Your task to perform on an android device: Open Yahoo.com Image 0: 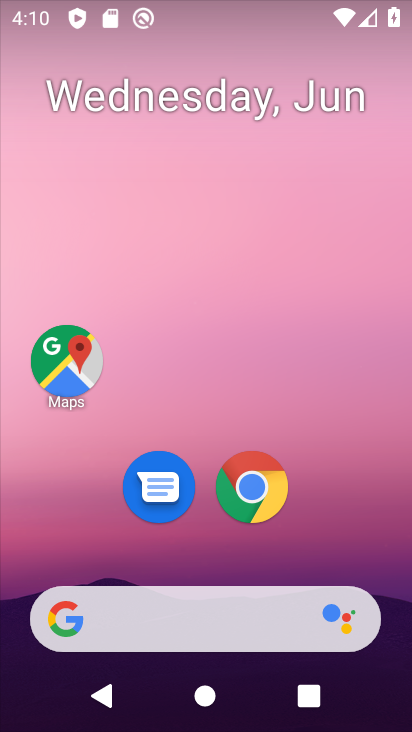
Step 0: click (258, 486)
Your task to perform on an android device: Open Yahoo.com Image 1: 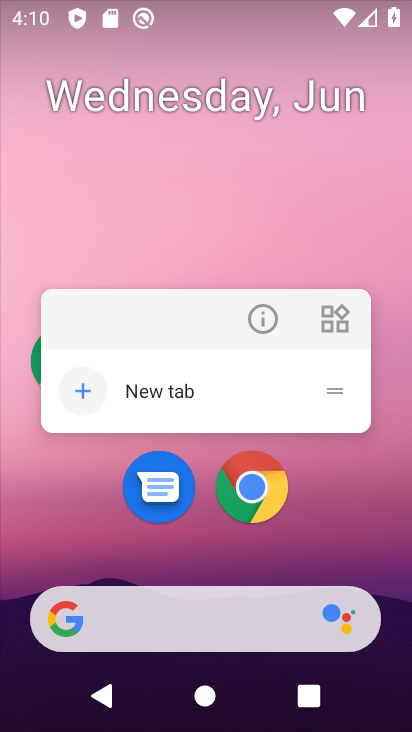
Step 1: click (244, 486)
Your task to perform on an android device: Open Yahoo.com Image 2: 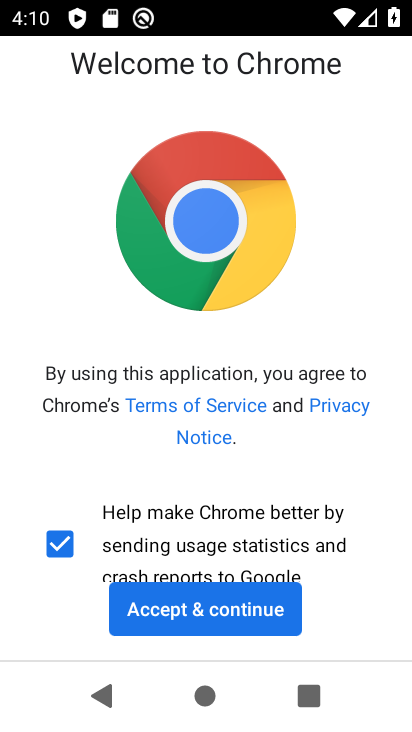
Step 2: click (244, 620)
Your task to perform on an android device: Open Yahoo.com Image 3: 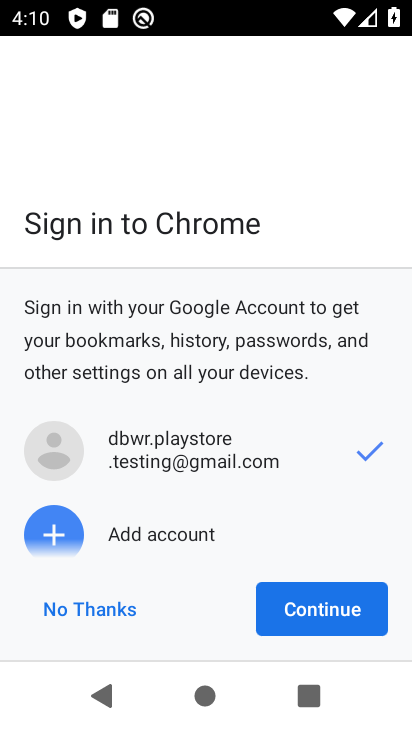
Step 3: click (291, 614)
Your task to perform on an android device: Open Yahoo.com Image 4: 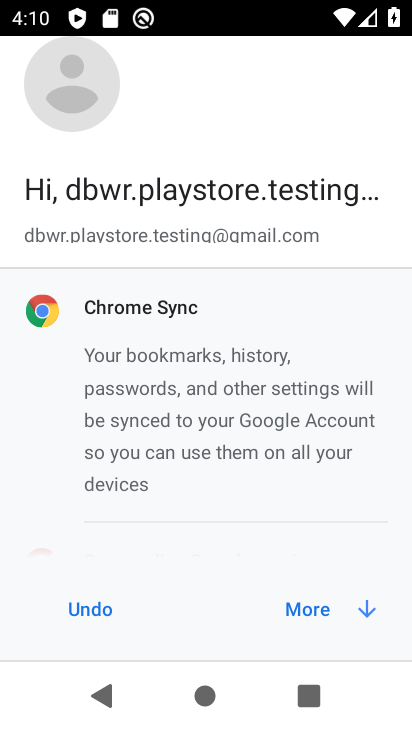
Step 4: click (293, 611)
Your task to perform on an android device: Open Yahoo.com Image 5: 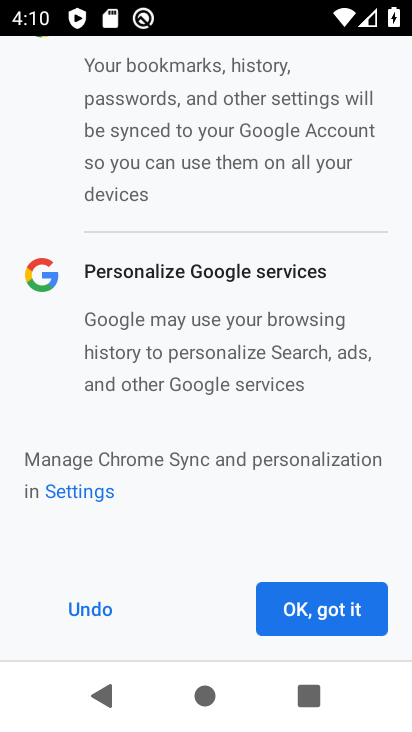
Step 5: click (294, 610)
Your task to perform on an android device: Open Yahoo.com Image 6: 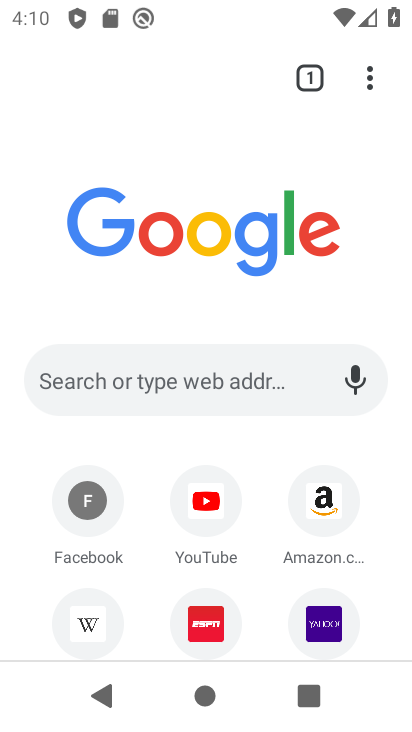
Step 6: click (333, 611)
Your task to perform on an android device: Open Yahoo.com Image 7: 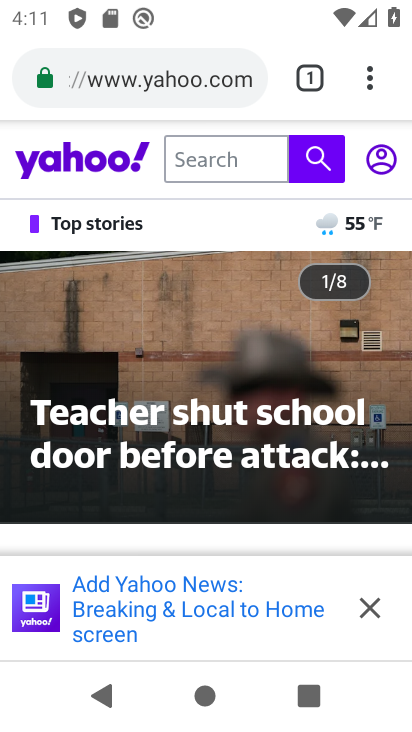
Step 7: task complete